Your task to perform on an android device: Go to Maps Image 0: 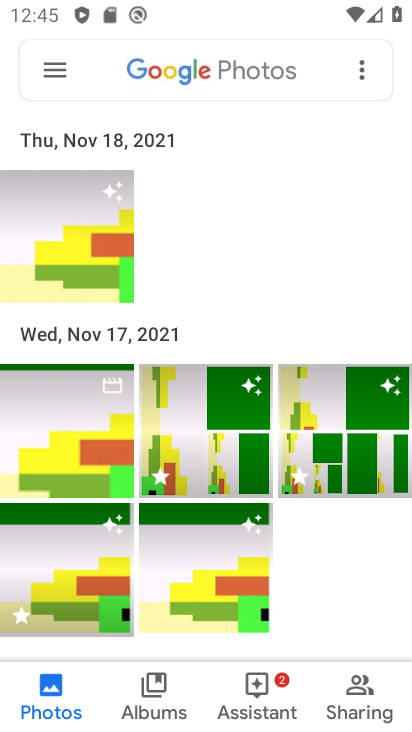
Step 0: press back button
Your task to perform on an android device: Go to Maps Image 1: 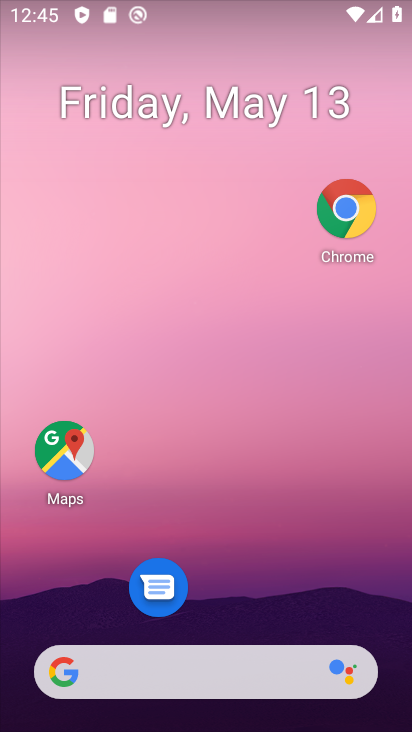
Step 1: click (22, 469)
Your task to perform on an android device: Go to Maps Image 2: 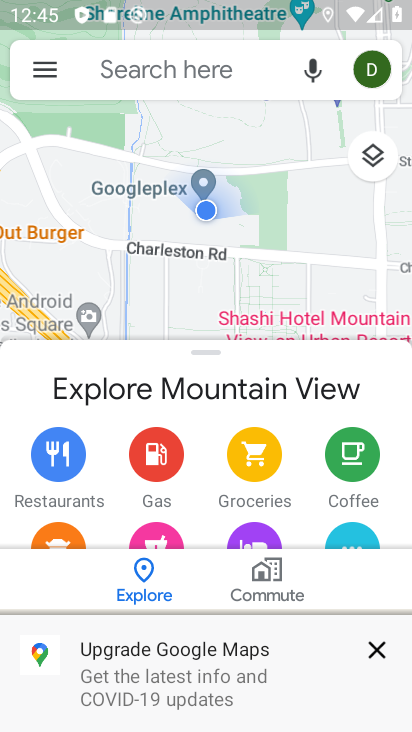
Step 2: task complete